Your task to perform on an android device: Go to sound settings Image 0: 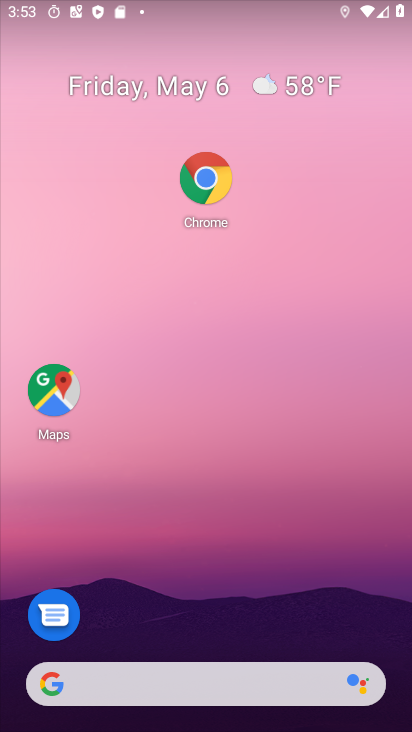
Step 0: drag from (285, 562) to (156, 121)
Your task to perform on an android device: Go to sound settings Image 1: 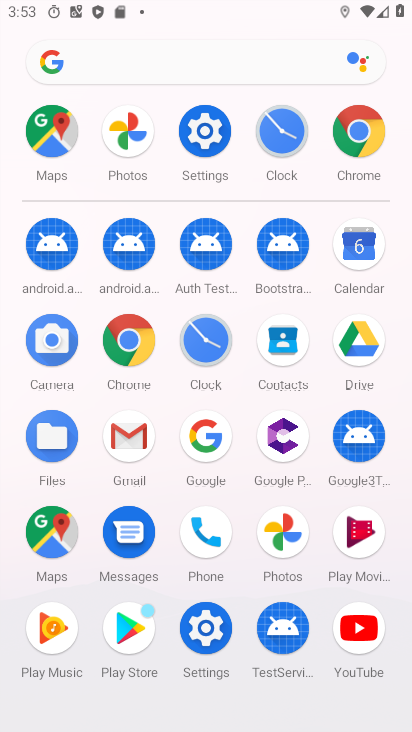
Step 1: click (205, 133)
Your task to perform on an android device: Go to sound settings Image 2: 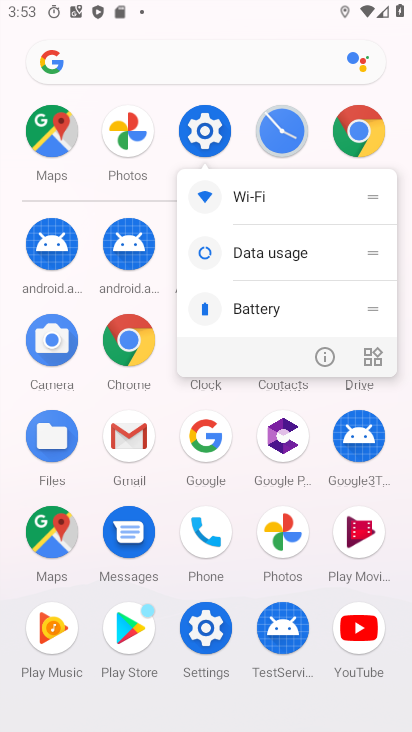
Step 2: click (205, 133)
Your task to perform on an android device: Go to sound settings Image 3: 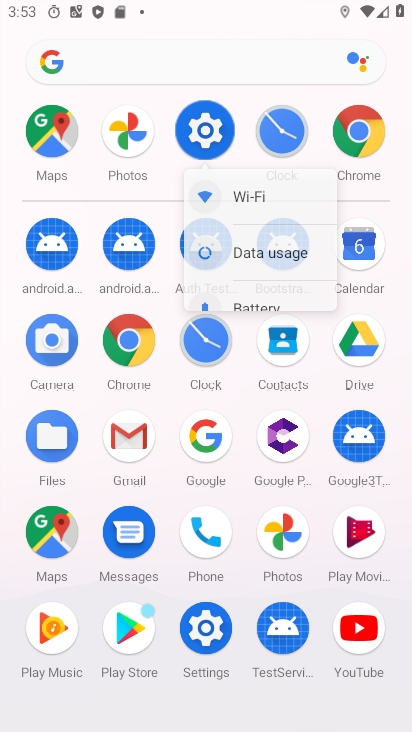
Step 3: click (205, 133)
Your task to perform on an android device: Go to sound settings Image 4: 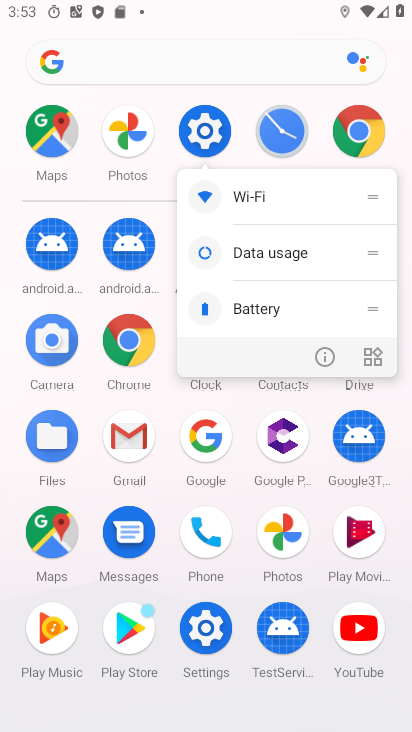
Step 4: click (206, 133)
Your task to perform on an android device: Go to sound settings Image 5: 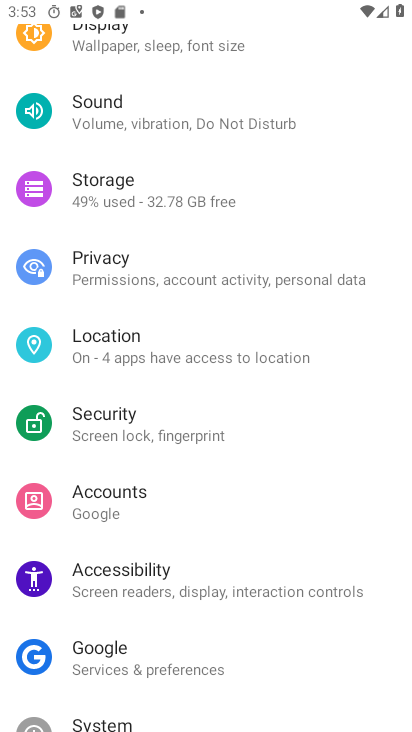
Step 5: click (101, 119)
Your task to perform on an android device: Go to sound settings Image 6: 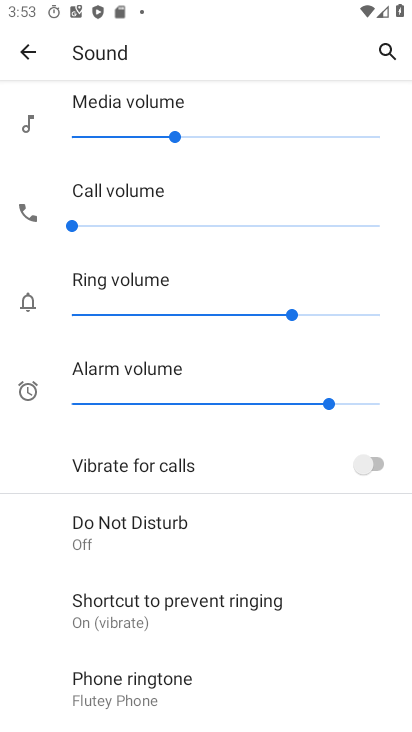
Step 6: task complete